Your task to perform on an android device: set the stopwatch Image 0: 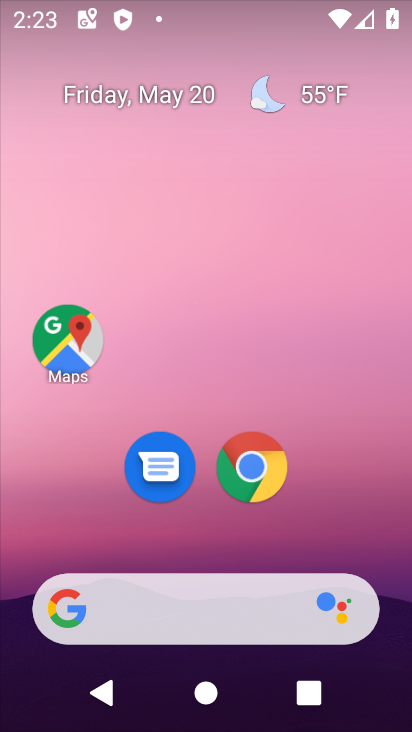
Step 0: drag from (208, 527) to (167, 5)
Your task to perform on an android device: set the stopwatch Image 1: 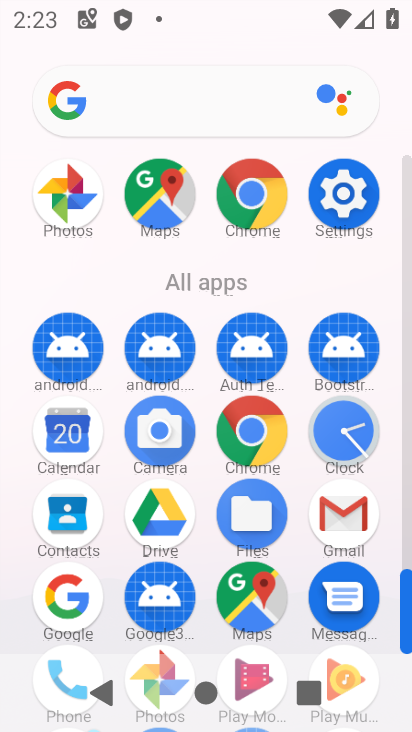
Step 1: click (332, 426)
Your task to perform on an android device: set the stopwatch Image 2: 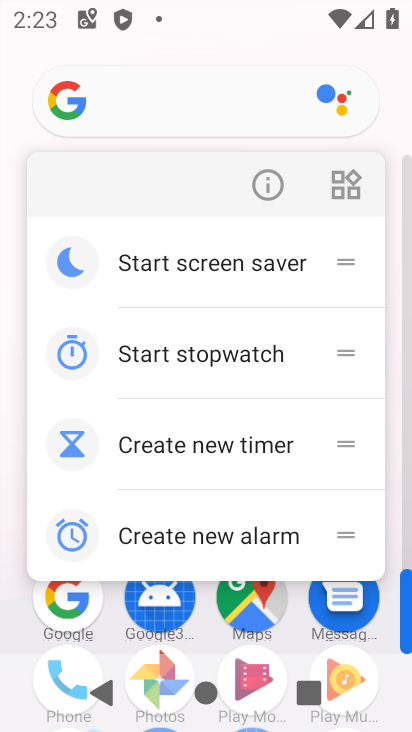
Step 2: click (394, 461)
Your task to perform on an android device: set the stopwatch Image 3: 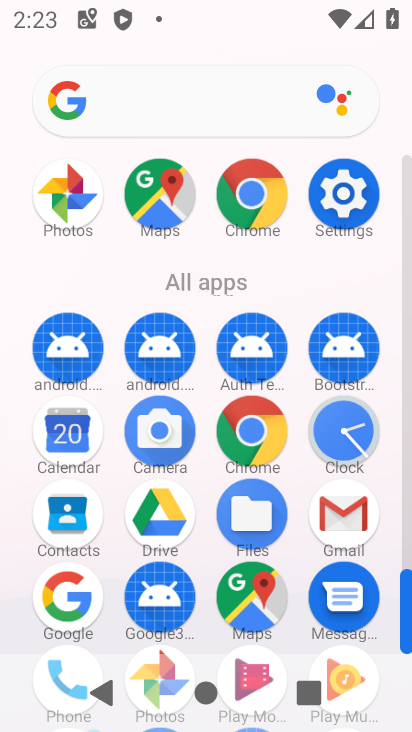
Step 3: click (333, 428)
Your task to perform on an android device: set the stopwatch Image 4: 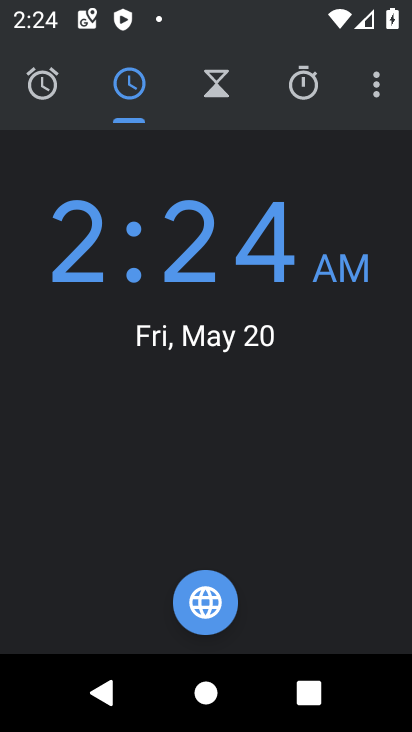
Step 4: click (290, 88)
Your task to perform on an android device: set the stopwatch Image 5: 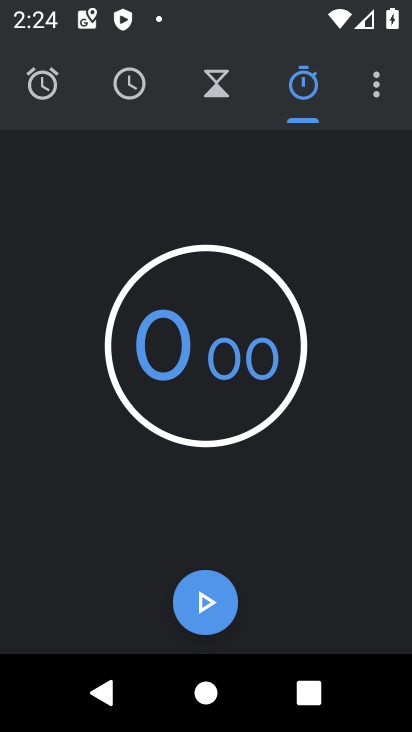
Step 5: click (193, 597)
Your task to perform on an android device: set the stopwatch Image 6: 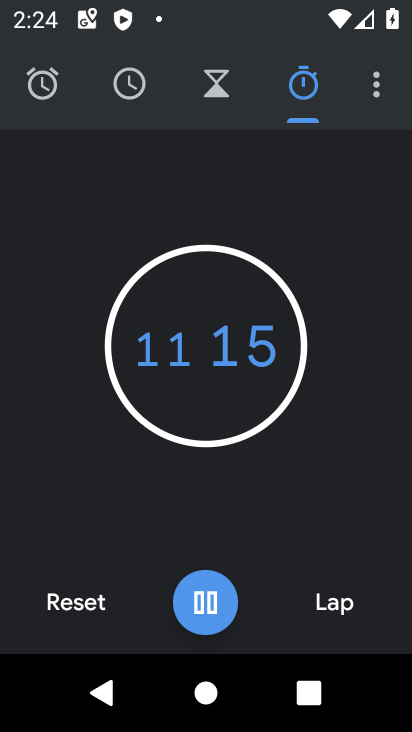
Step 6: task complete